Your task to perform on an android device: See recent photos Image 0: 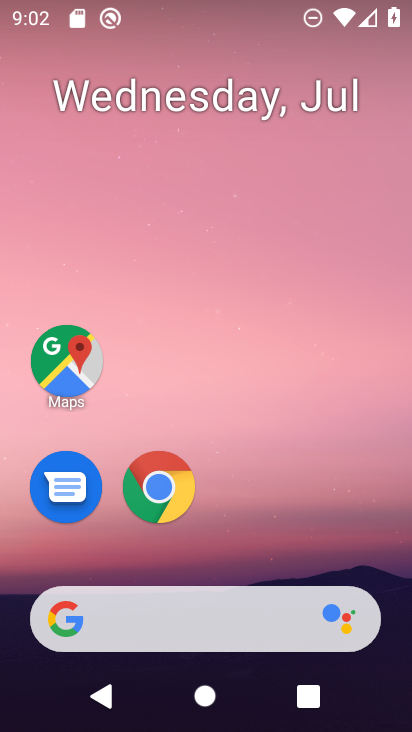
Step 0: drag from (343, 534) to (362, 95)
Your task to perform on an android device: See recent photos Image 1: 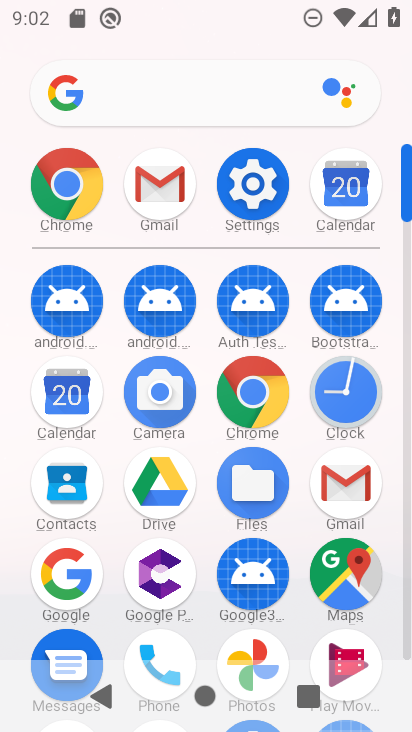
Step 1: drag from (403, 612) to (411, 529)
Your task to perform on an android device: See recent photos Image 2: 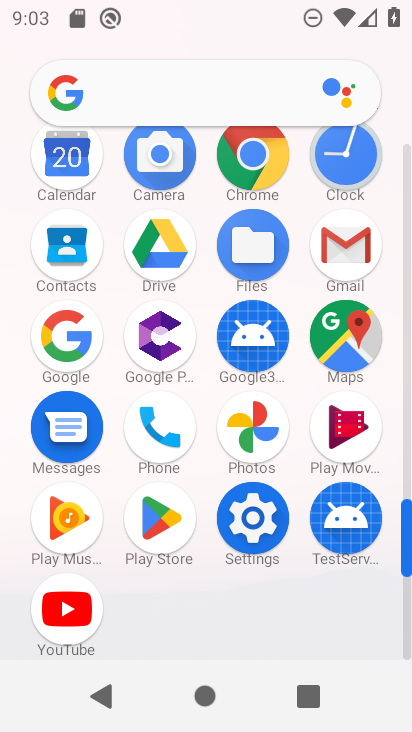
Step 2: click (255, 417)
Your task to perform on an android device: See recent photos Image 3: 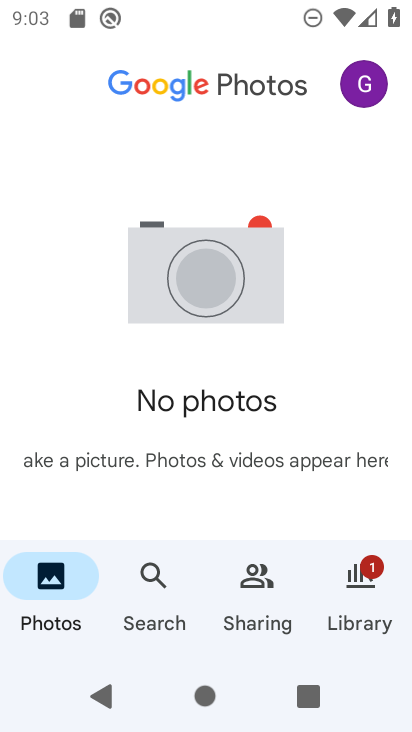
Step 3: task complete